Your task to perform on an android device: uninstall "Pluto TV - Live TV and Movies" Image 0: 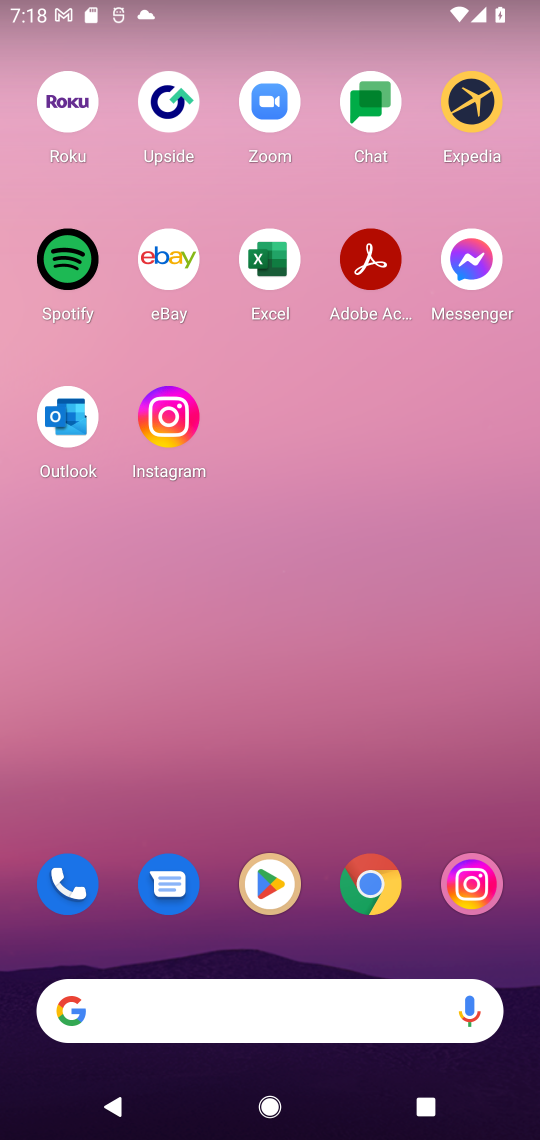
Step 0: drag from (307, 1020) to (327, 108)
Your task to perform on an android device: uninstall "Pluto TV - Live TV and Movies" Image 1: 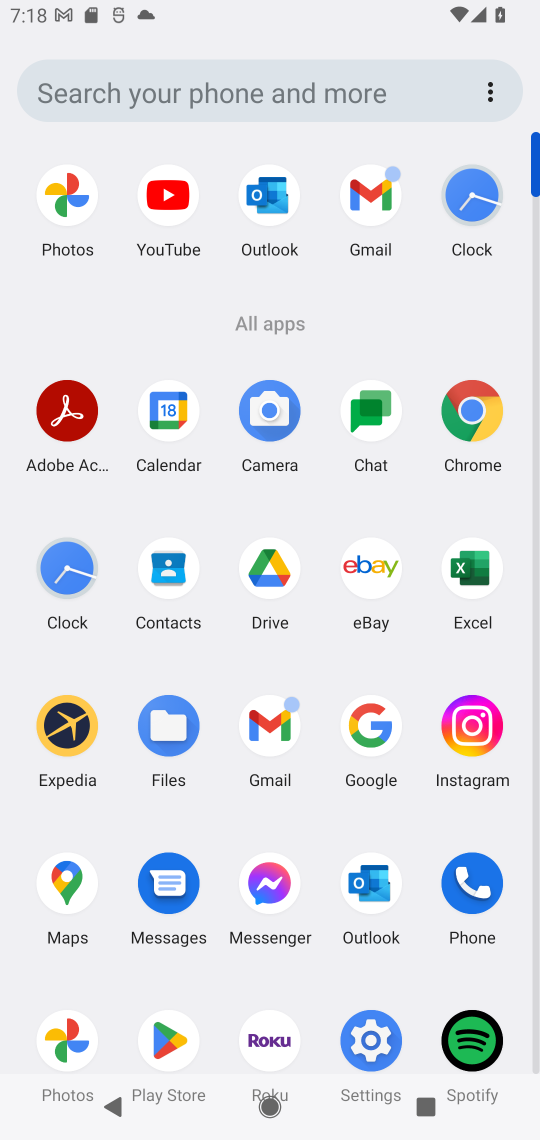
Step 1: click (175, 1037)
Your task to perform on an android device: uninstall "Pluto TV - Live TV and Movies" Image 2: 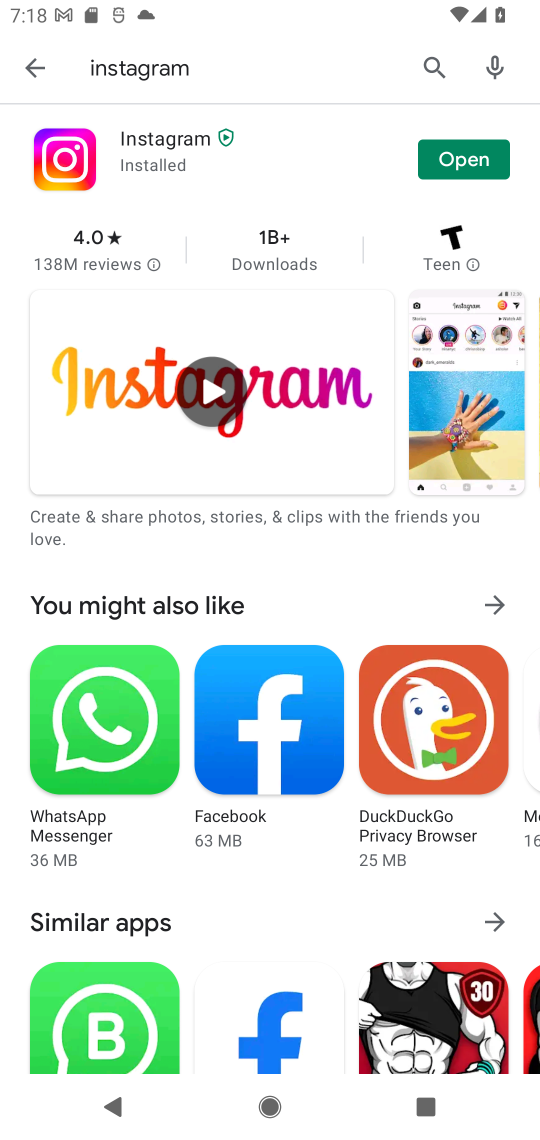
Step 2: press back button
Your task to perform on an android device: uninstall "Pluto TV - Live TV and Movies" Image 3: 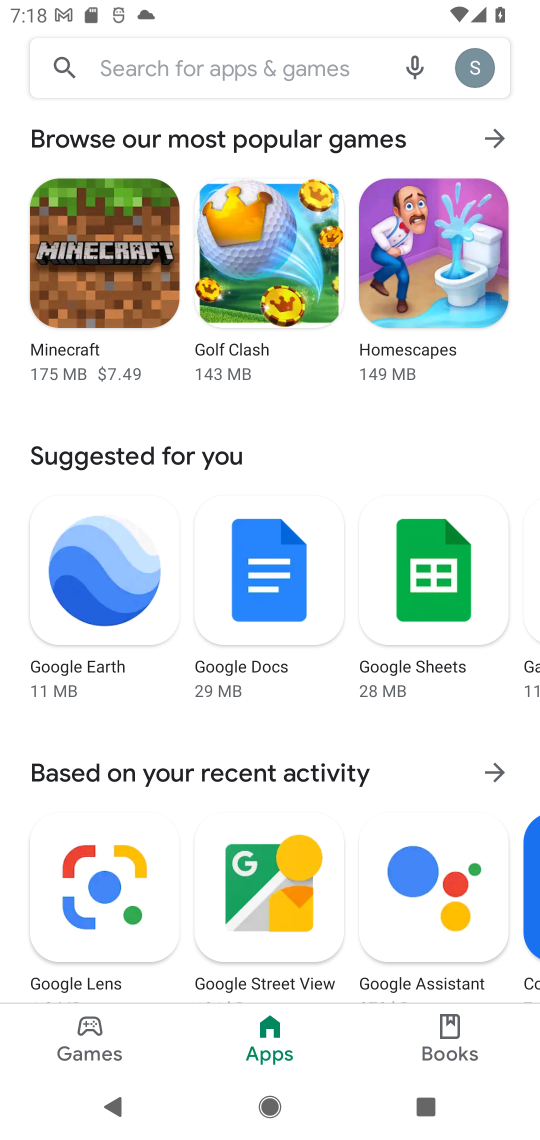
Step 3: click (263, 71)
Your task to perform on an android device: uninstall "Pluto TV - Live TV and Movies" Image 4: 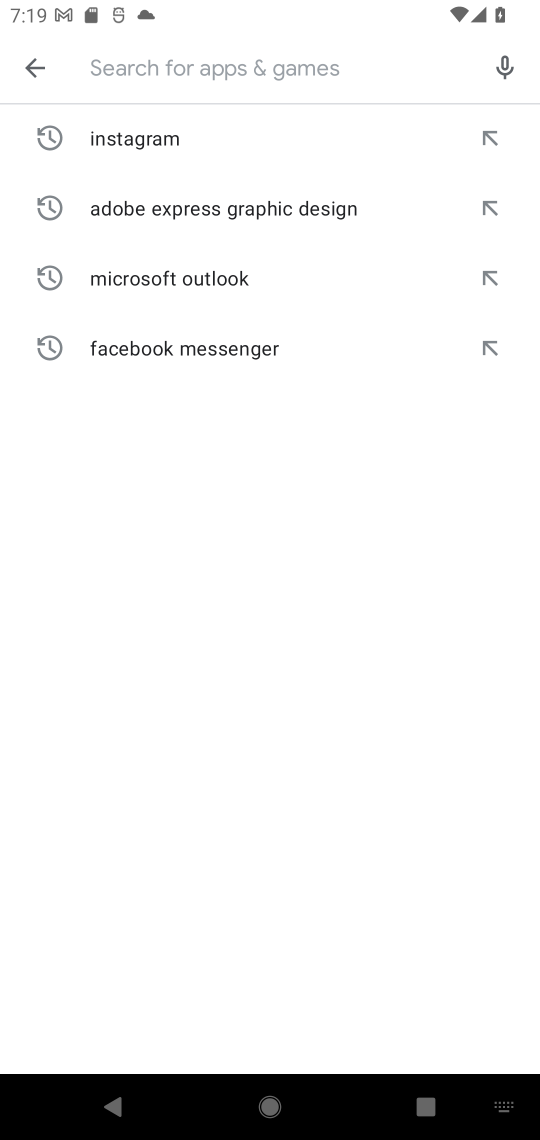
Step 4: type "Pluto TV - Live Tv and Movies"
Your task to perform on an android device: uninstall "Pluto TV - Live TV and Movies" Image 5: 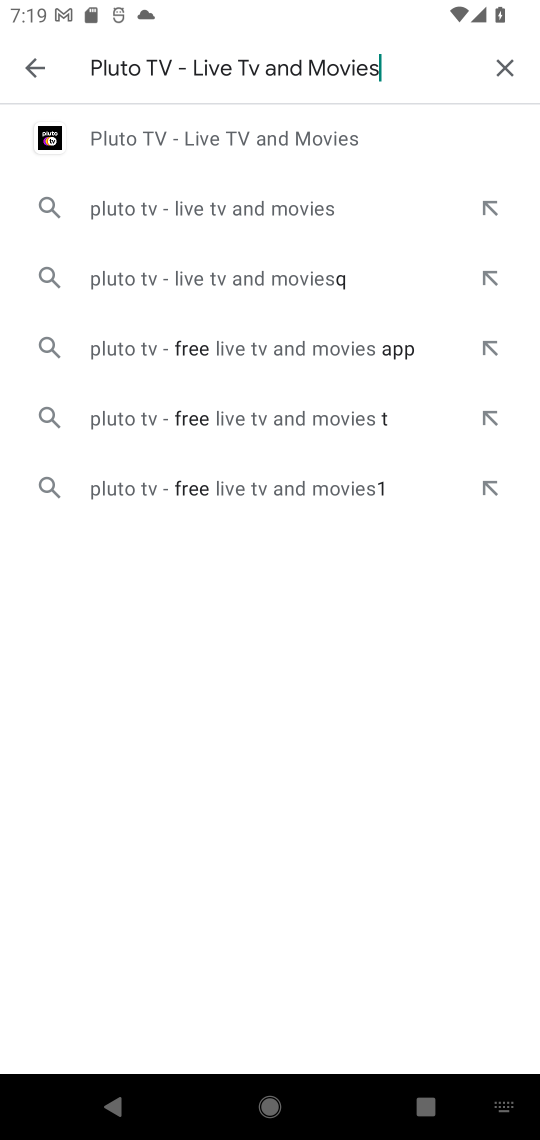
Step 5: click (281, 133)
Your task to perform on an android device: uninstall "Pluto TV - Live TV and Movies" Image 6: 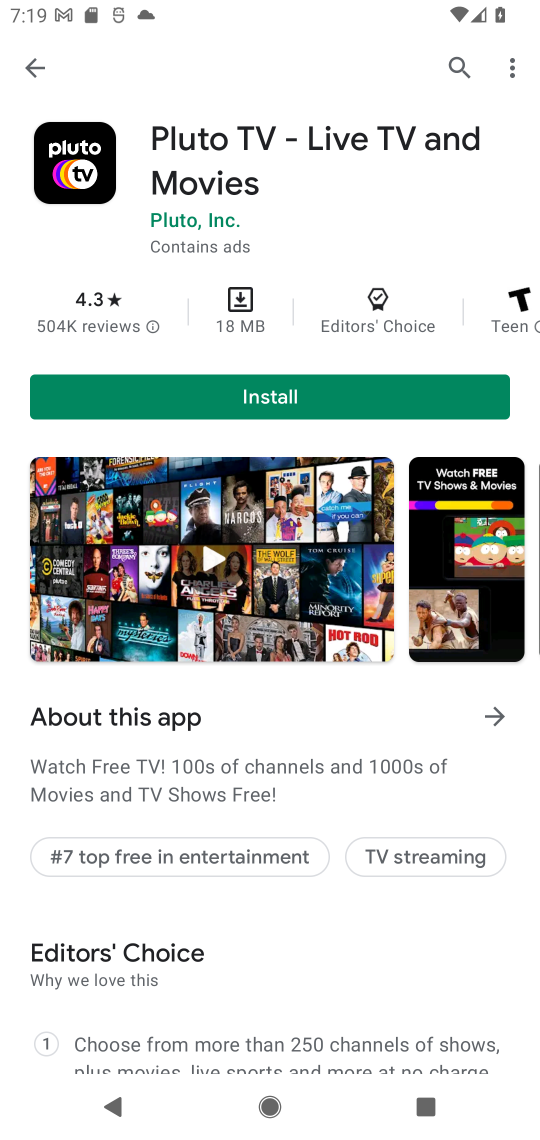
Step 6: task complete